Your task to perform on an android device: Is it going to rain today? Image 0: 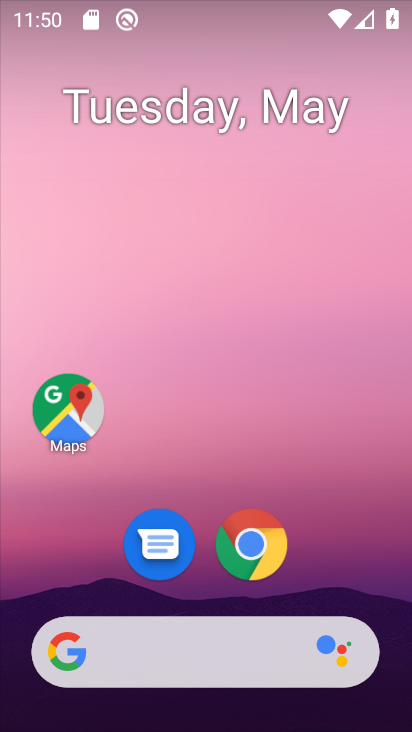
Step 0: drag from (248, 486) to (242, 149)
Your task to perform on an android device: Is it going to rain today? Image 1: 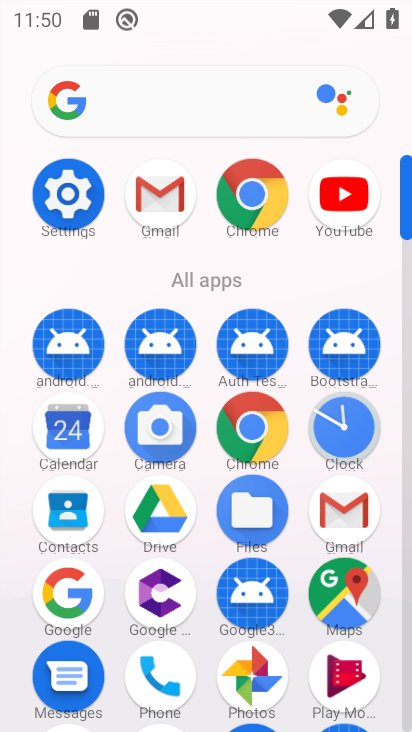
Step 1: click (88, 599)
Your task to perform on an android device: Is it going to rain today? Image 2: 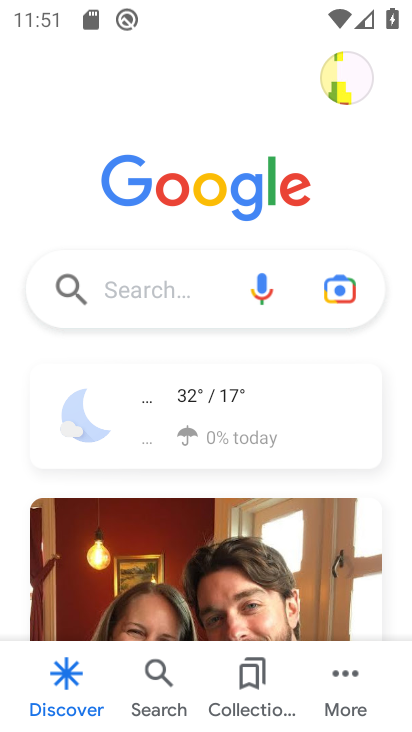
Step 2: click (212, 420)
Your task to perform on an android device: Is it going to rain today? Image 3: 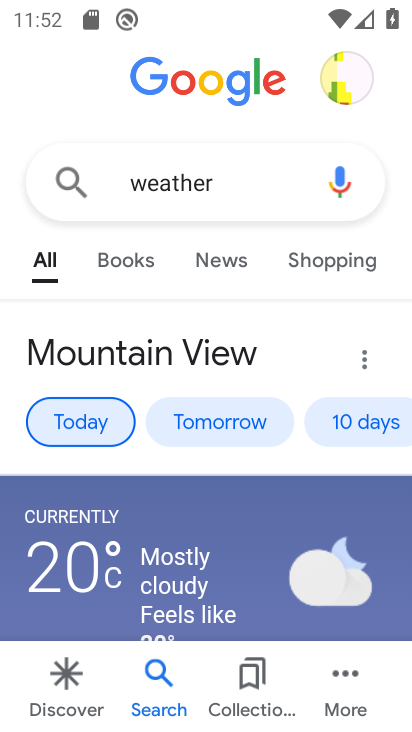
Step 3: task complete